Your task to perform on an android device: What's the weather going to be this weekend? Image 0: 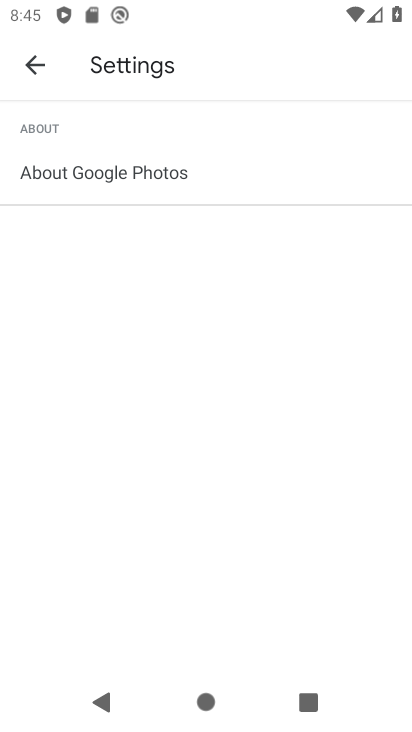
Step 0: press home button
Your task to perform on an android device: What's the weather going to be this weekend? Image 1: 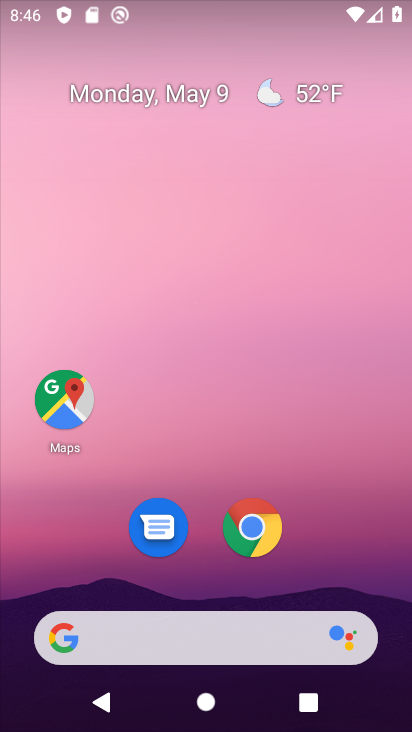
Step 1: drag from (355, 544) to (321, 140)
Your task to perform on an android device: What's the weather going to be this weekend? Image 2: 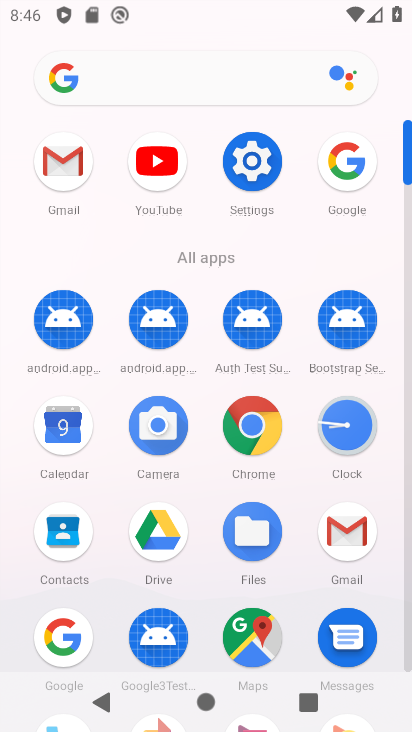
Step 2: click (233, 437)
Your task to perform on an android device: What's the weather going to be this weekend? Image 3: 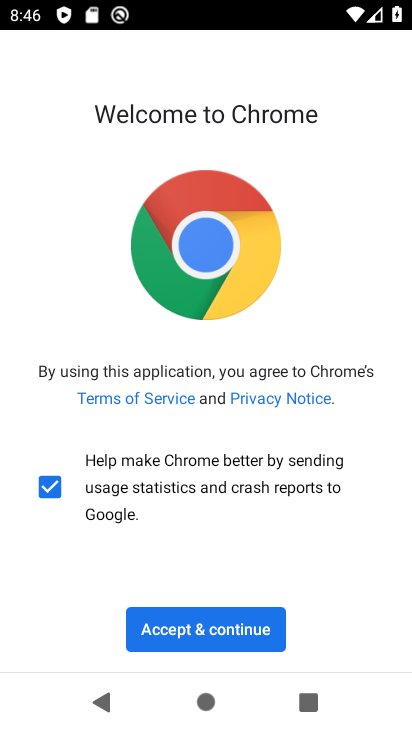
Step 3: click (198, 635)
Your task to perform on an android device: What's the weather going to be this weekend? Image 4: 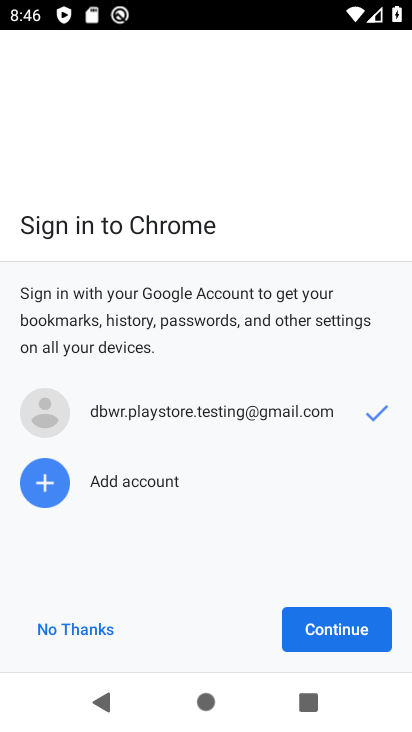
Step 4: click (363, 627)
Your task to perform on an android device: What's the weather going to be this weekend? Image 5: 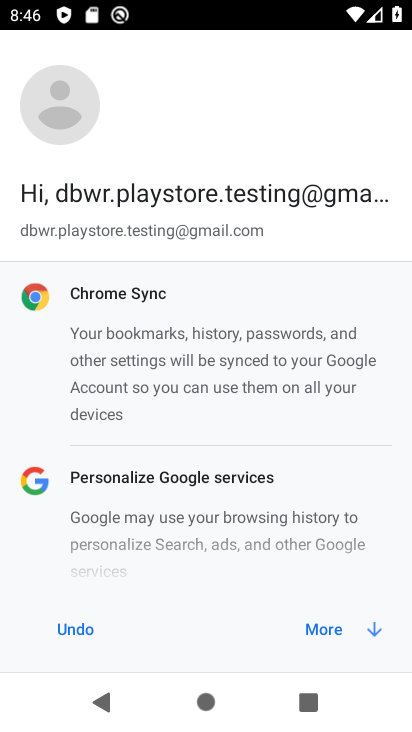
Step 5: click (342, 633)
Your task to perform on an android device: What's the weather going to be this weekend? Image 6: 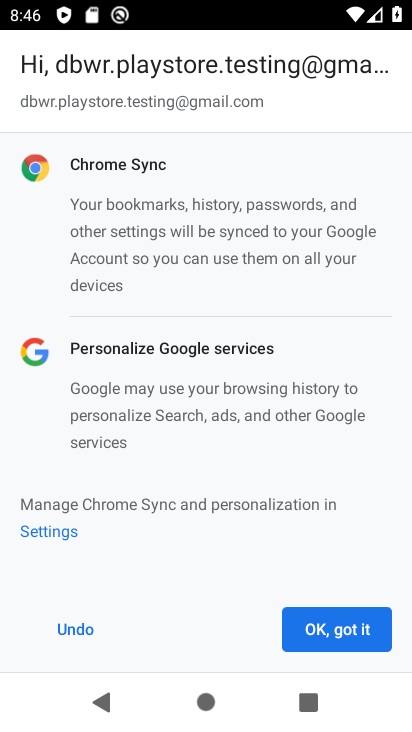
Step 6: click (342, 633)
Your task to perform on an android device: What's the weather going to be this weekend? Image 7: 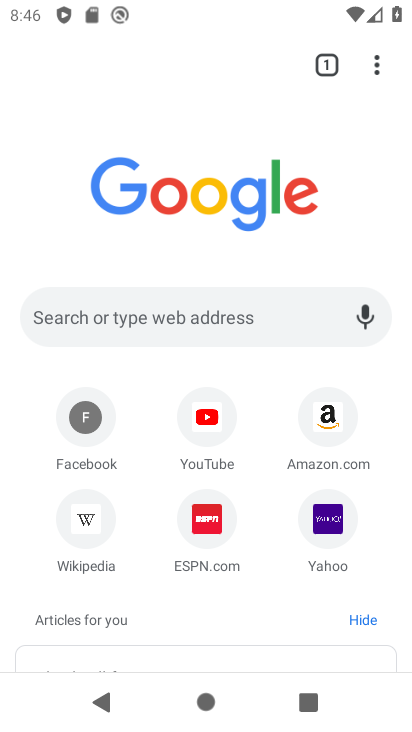
Step 7: click (200, 316)
Your task to perform on an android device: What's the weather going to be this weekend? Image 8: 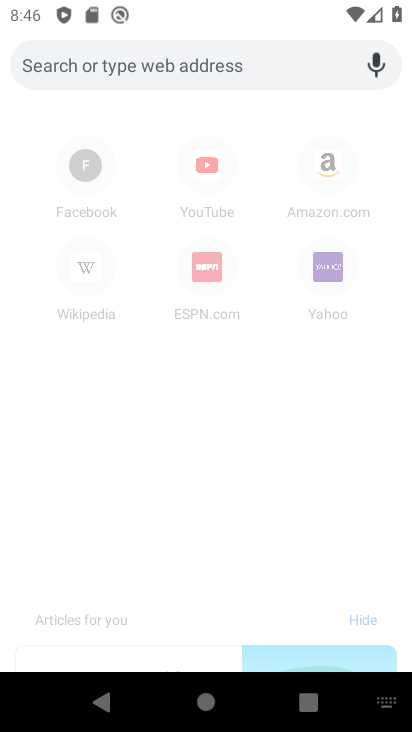
Step 8: type "what's the weather going to be this weekend"
Your task to perform on an android device: What's the weather going to be this weekend? Image 9: 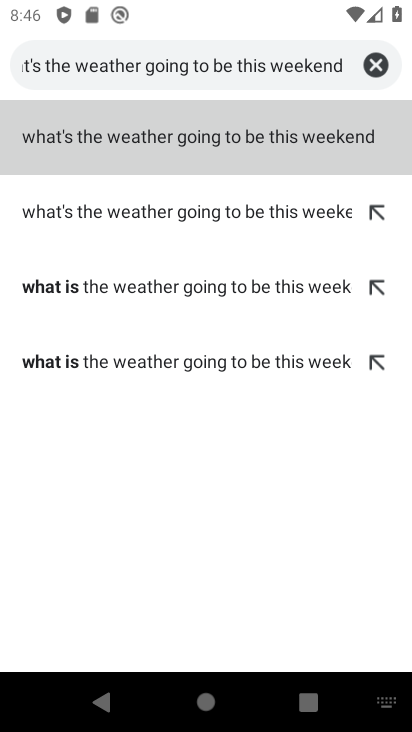
Step 9: click (146, 61)
Your task to perform on an android device: What's the weather going to be this weekend? Image 10: 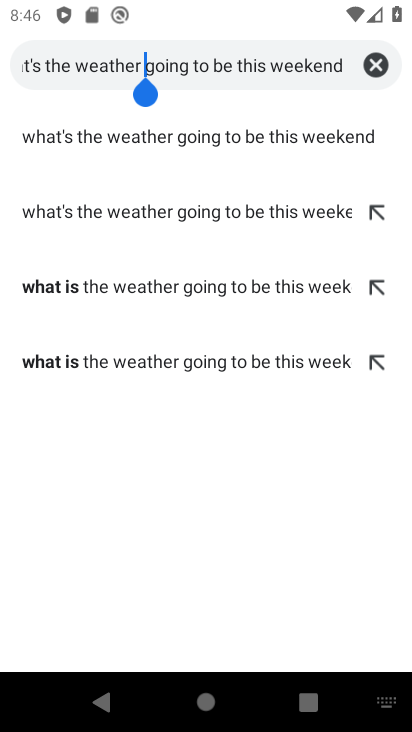
Step 10: click (123, 126)
Your task to perform on an android device: What's the weather going to be this weekend? Image 11: 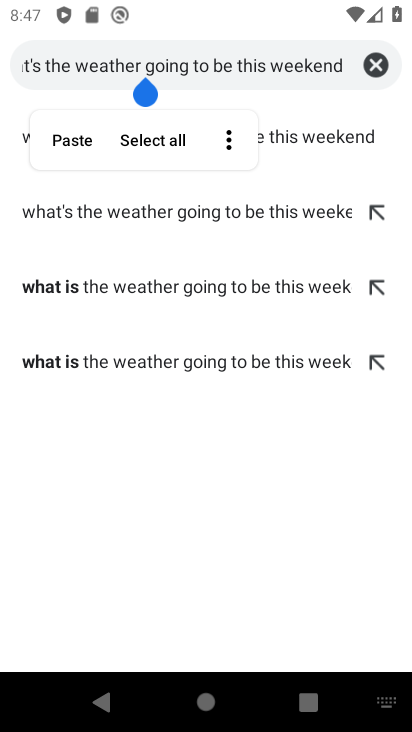
Step 11: click (282, 128)
Your task to perform on an android device: What's the weather going to be this weekend? Image 12: 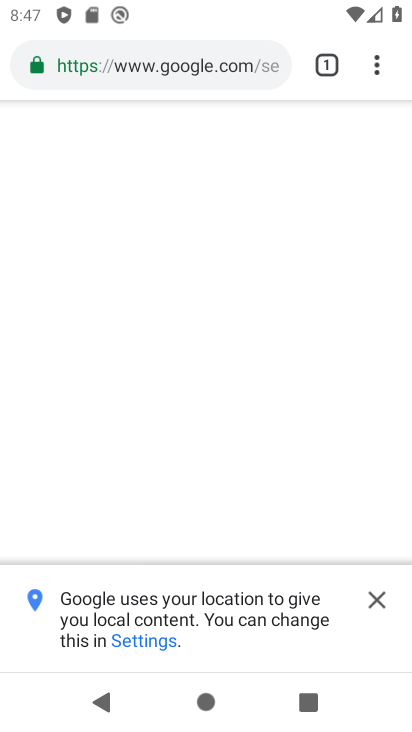
Step 12: click (379, 604)
Your task to perform on an android device: What's the weather going to be this weekend? Image 13: 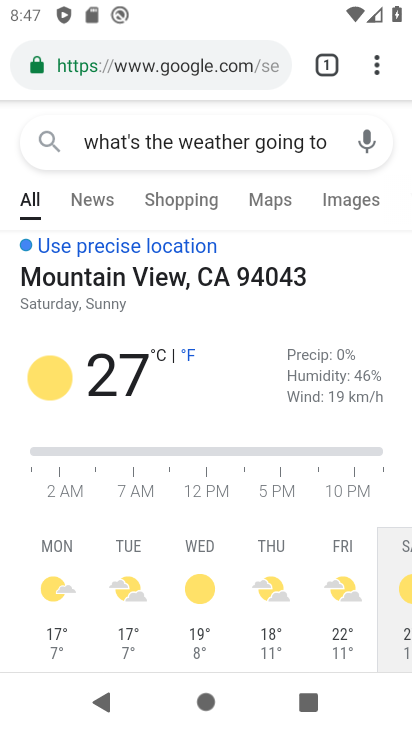
Step 13: task complete